Your task to perform on an android device: open sync settings in chrome Image 0: 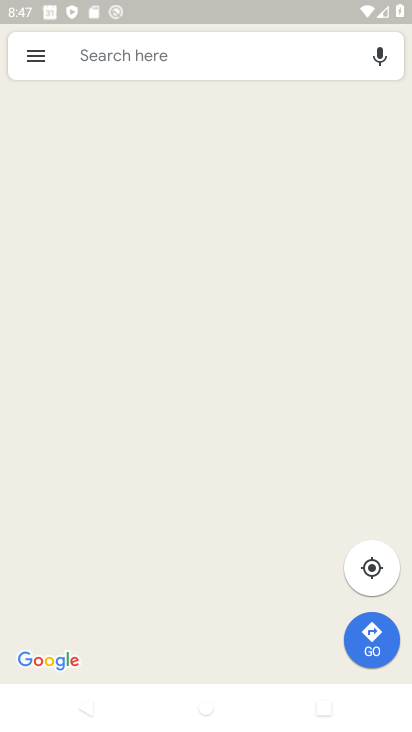
Step 0: drag from (321, 565) to (301, 244)
Your task to perform on an android device: open sync settings in chrome Image 1: 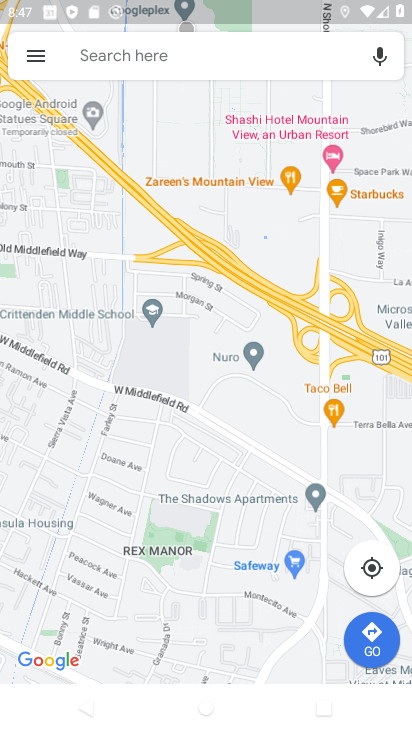
Step 1: press home button
Your task to perform on an android device: open sync settings in chrome Image 2: 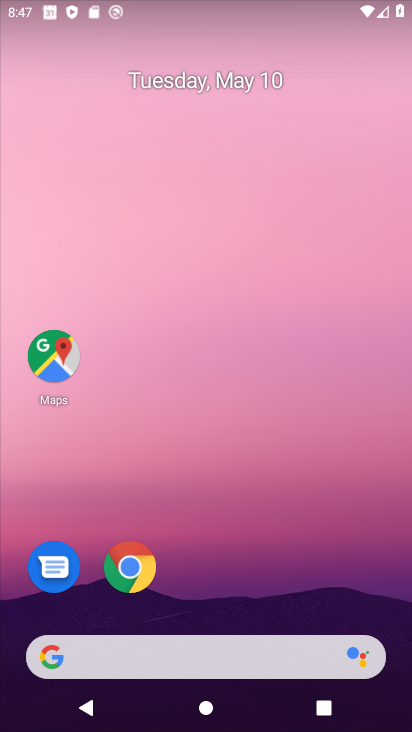
Step 2: drag from (324, 540) to (395, 14)
Your task to perform on an android device: open sync settings in chrome Image 3: 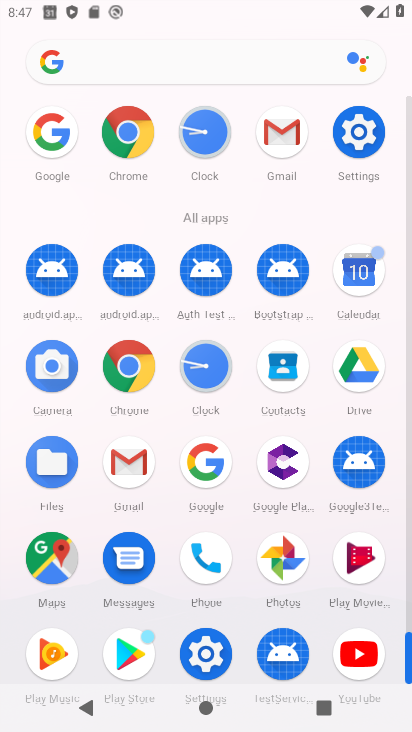
Step 3: click (137, 125)
Your task to perform on an android device: open sync settings in chrome Image 4: 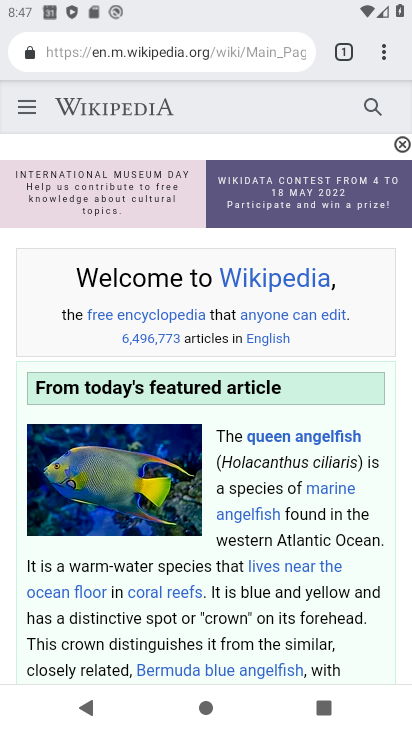
Step 4: drag from (385, 53) to (250, 623)
Your task to perform on an android device: open sync settings in chrome Image 5: 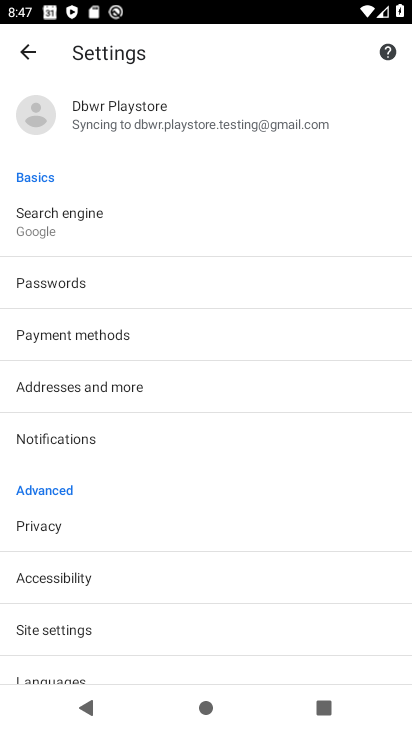
Step 5: drag from (200, 636) to (159, 194)
Your task to perform on an android device: open sync settings in chrome Image 6: 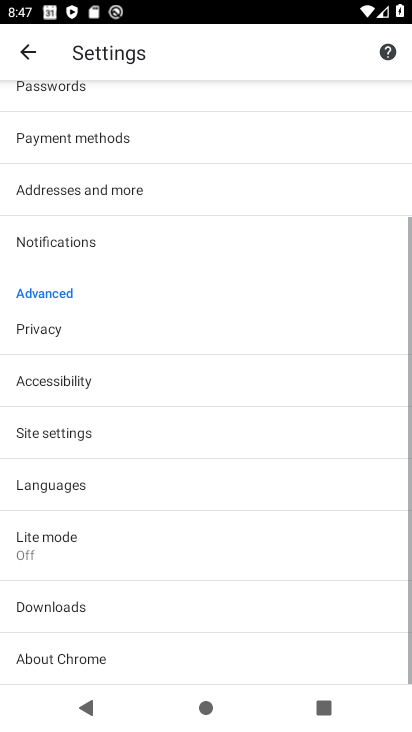
Step 6: click (57, 441)
Your task to perform on an android device: open sync settings in chrome Image 7: 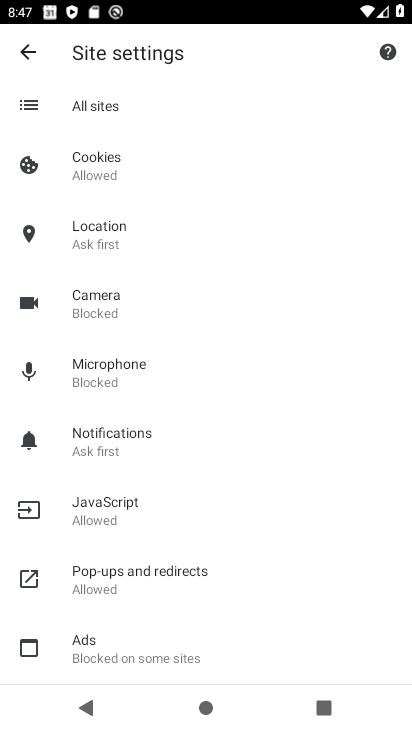
Step 7: drag from (147, 603) to (103, 242)
Your task to perform on an android device: open sync settings in chrome Image 8: 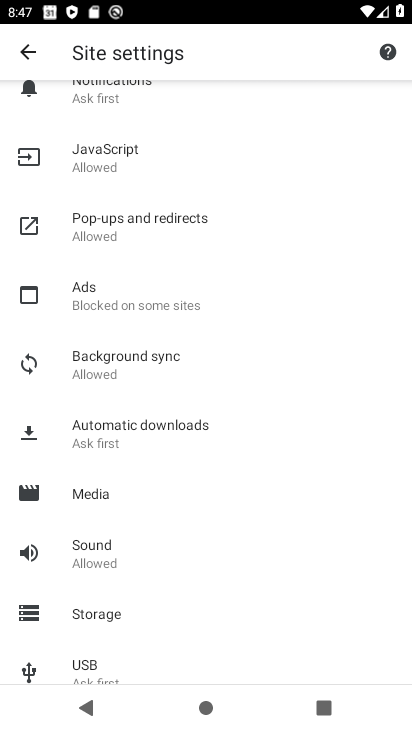
Step 8: click (156, 361)
Your task to perform on an android device: open sync settings in chrome Image 9: 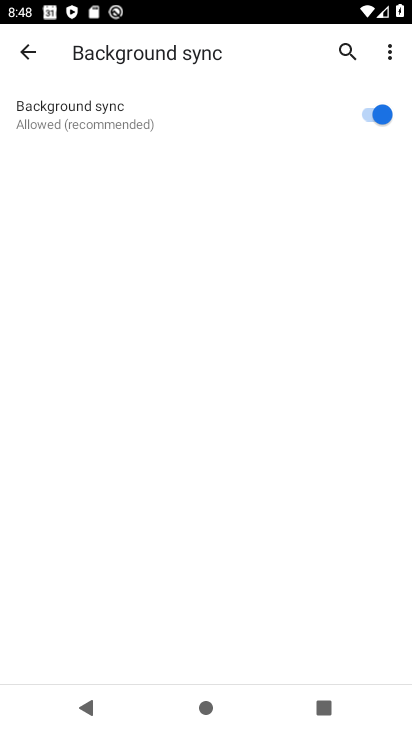
Step 9: task complete